Your task to perform on an android device: check battery use Image 0: 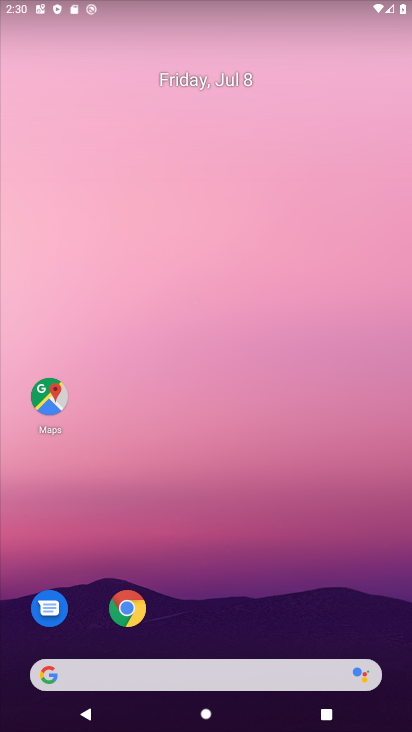
Step 0: drag from (241, 665) to (229, 10)
Your task to perform on an android device: check battery use Image 1: 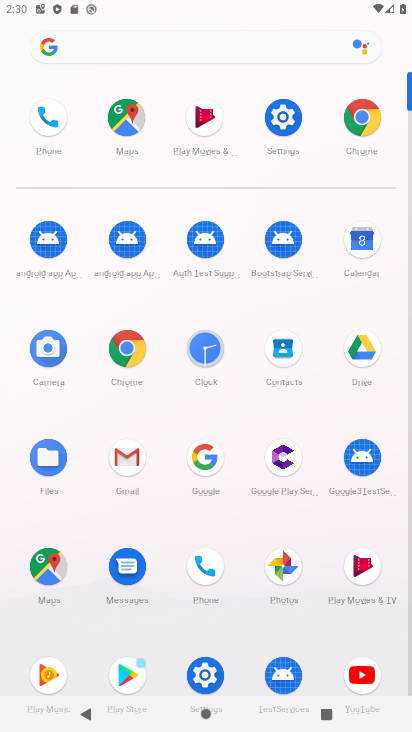
Step 1: click (263, 131)
Your task to perform on an android device: check battery use Image 2: 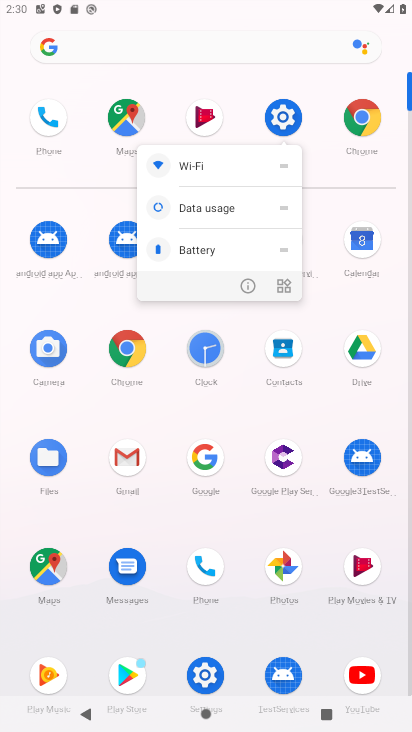
Step 2: click (279, 122)
Your task to perform on an android device: check battery use Image 3: 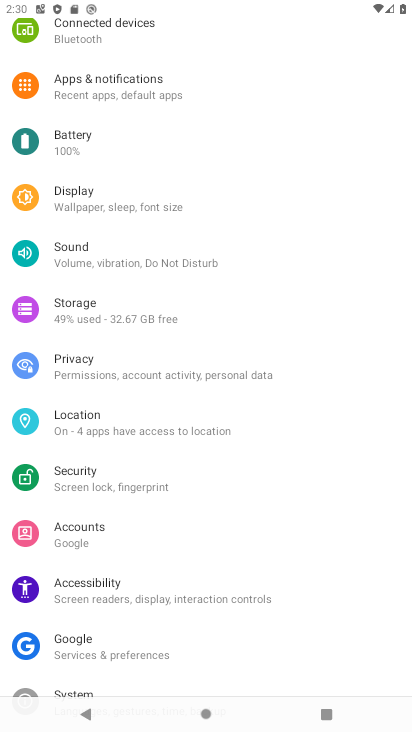
Step 3: click (76, 144)
Your task to perform on an android device: check battery use Image 4: 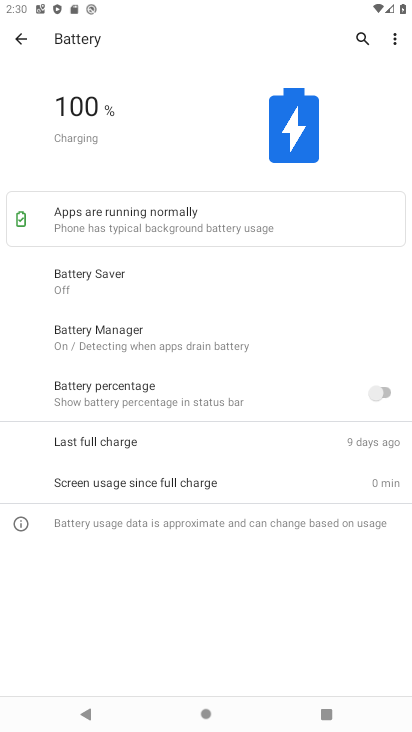
Step 4: task complete